Your task to perform on an android device: Open calendar and show me the second week of next month Image 0: 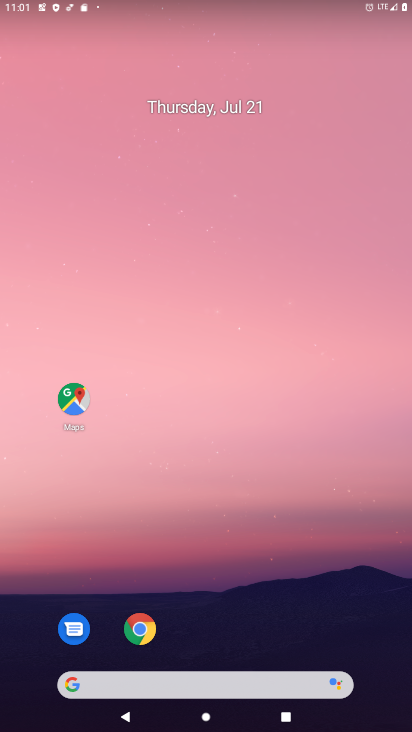
Step 0: press home button
Your task to perform on an android device: Open calendar and show me the second week of next month Image 1: 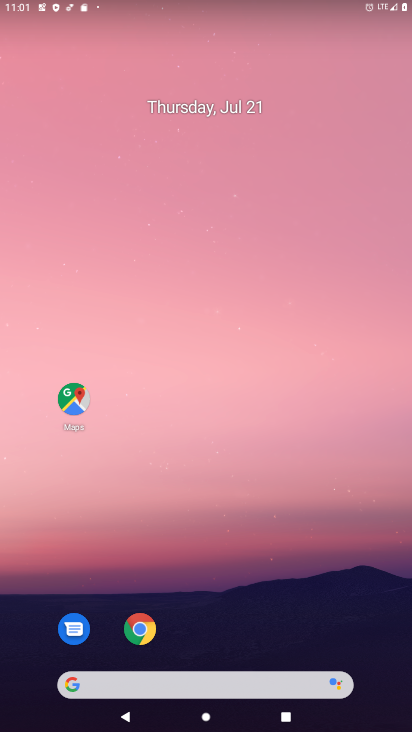
Step 1: drag from (222, 595) to (242, 57)
Your task to perform on an android device: Open calendar and show me the second week of next month Image 2: 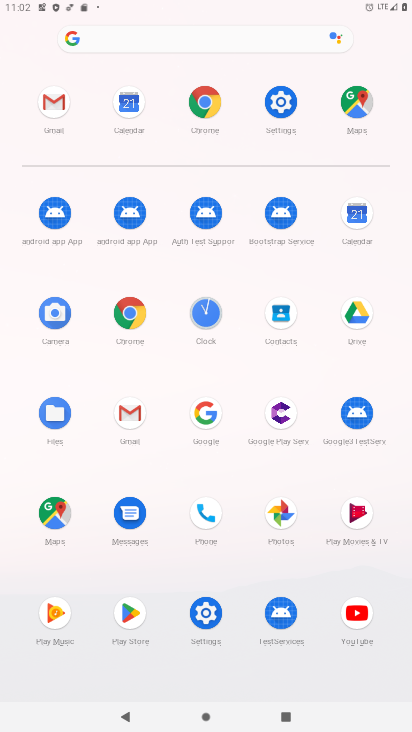
Step 2: click (361, 208)
Your task to perform on an android device: Open calendar and show me the second week of next month Image 3: 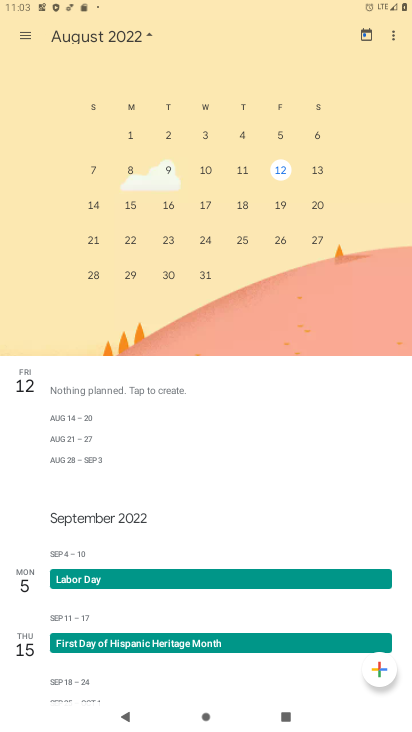
Step 3: drag from (298, 153) to (3, 134)
Your task to perform on an android device: Open calendar and show me the second week of next month Image 4: 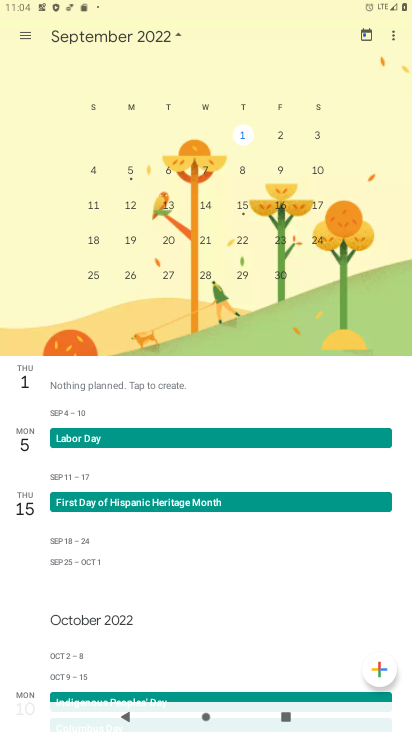
Step 4: drag from (42, 195) to (356, 143)
Your task to perform on an android device: Open calendar and show me the second week of next month Image 5: 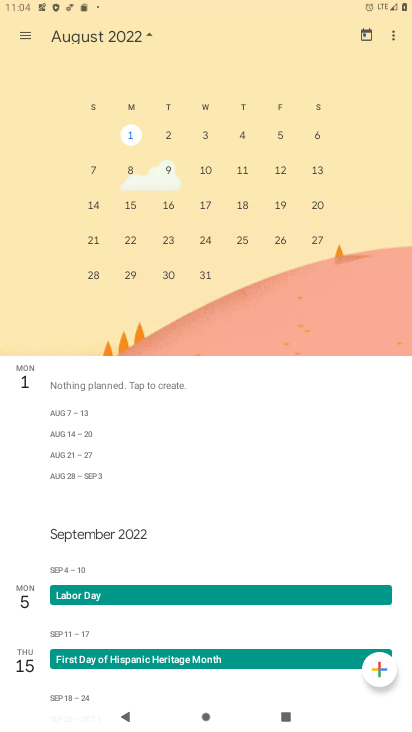
Step 5: click (116, 162)
Your task to perform on an android device: Open calendar and show me the second week of next month Image 6: 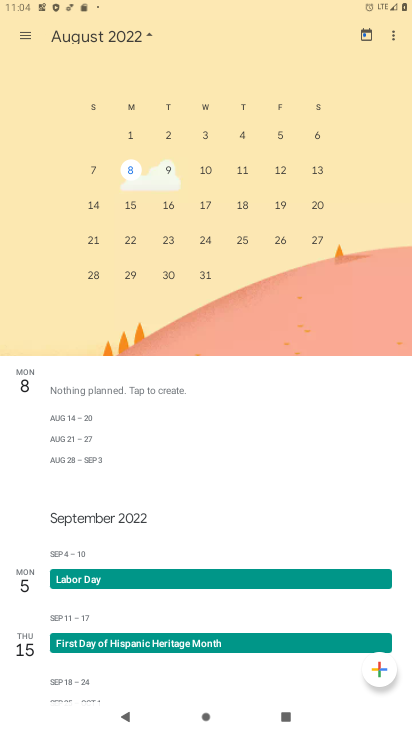
Step 6: task complete